Your task to perform on an android device: turn on notifications settings in the gmail app Image 0: 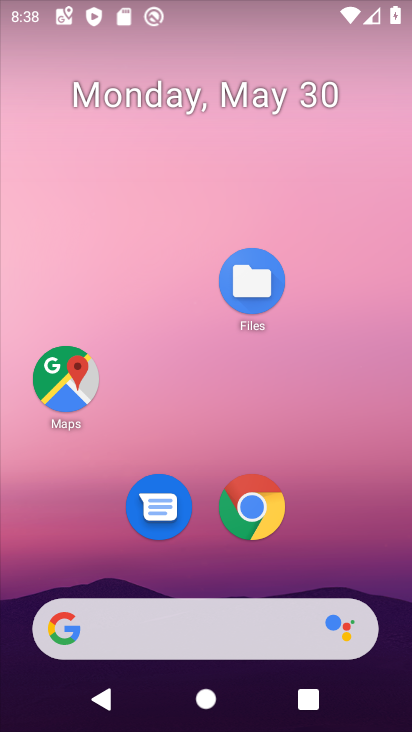
Step 0: drag from (206, 584) to (264, 161)
Your task to perform on an android device: turn on notifications settings in the gmail app Image 1: 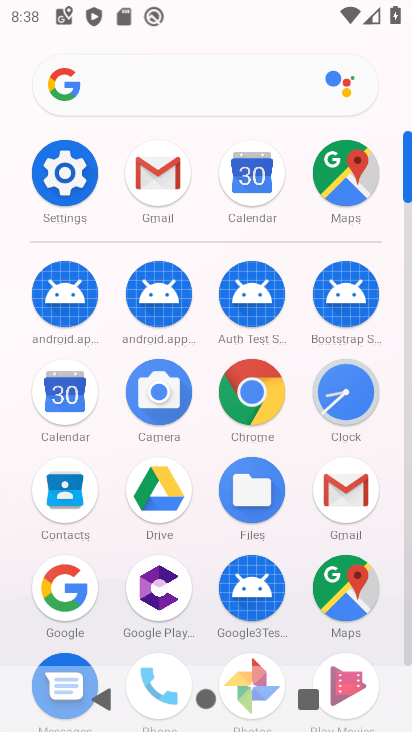
Step 1: click (336, 488)
Your task to perform on an android device: turn on notifications settings in the gmail app Image 2: 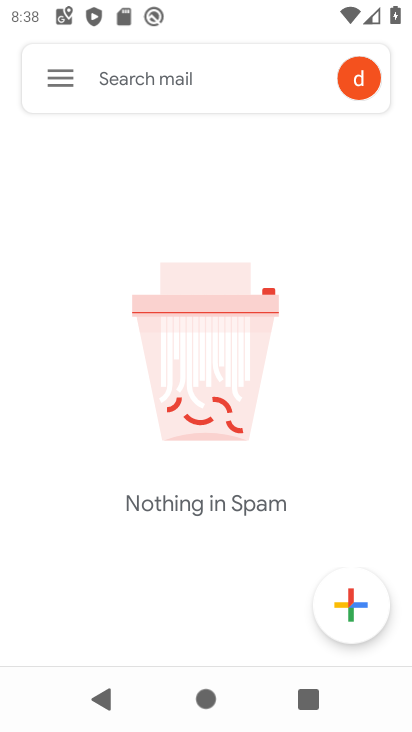
Step 2: click (53, 86)
Your task to perform on an android device: turn on notifications settings in the gmail app Image 3: 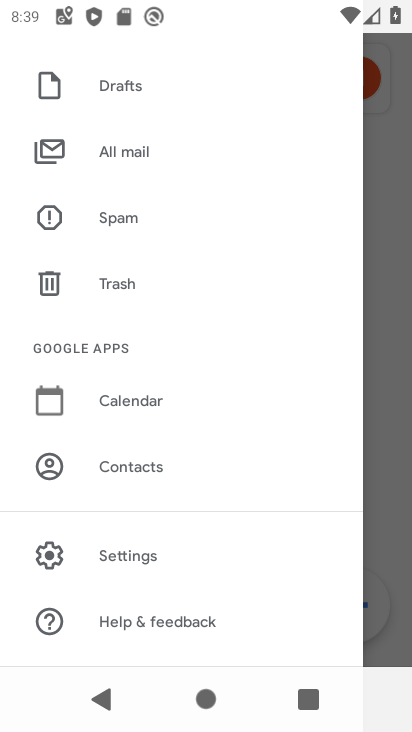
Step 3: click (126, 559)
Your task to perform on an android device: turn on notifications settings in the gmail app Image 4: 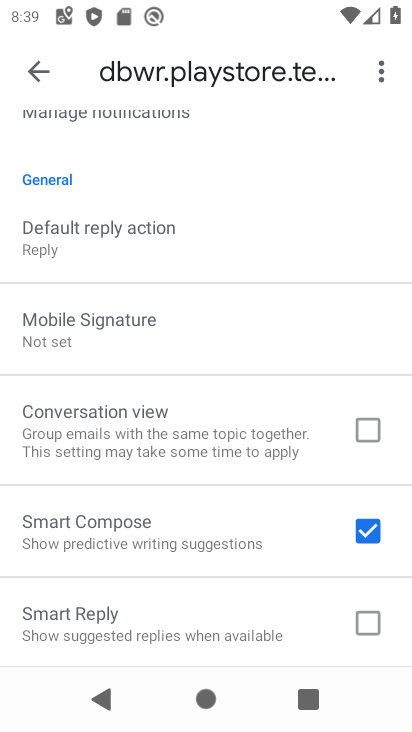
Step 4: click (35, 58)
Your task to perform on an android device: turn on notifications settings in the gmail app Image 5: 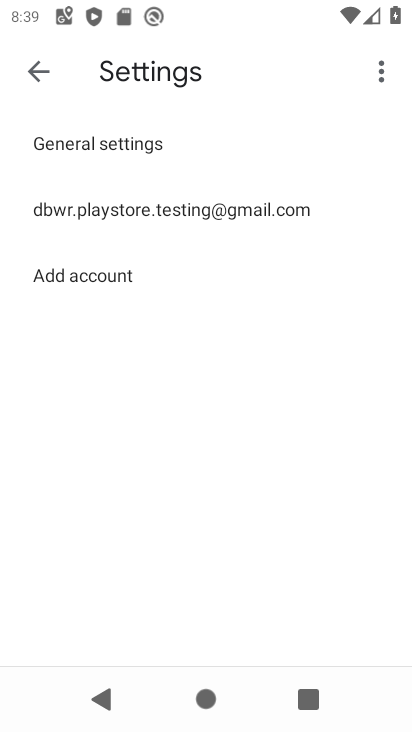
Step 5: click (150, 148)
Your task to perform on an android device: turn on notifications settings in the gmail app Image 6: 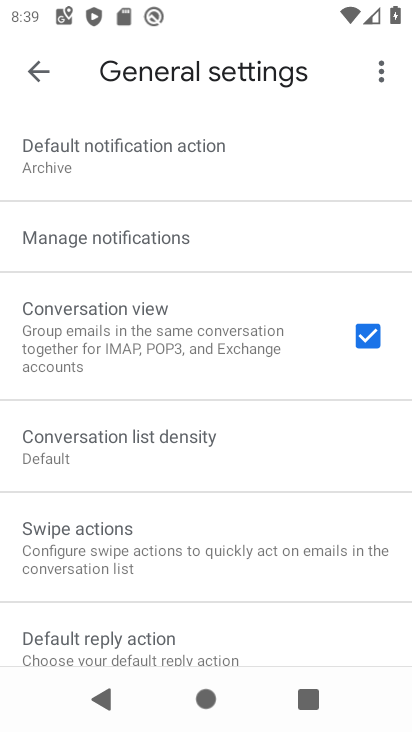
Step 6: click (157, 231)
Your task to perform on an android device: turn on notifications settings in the gmail app Image 7: 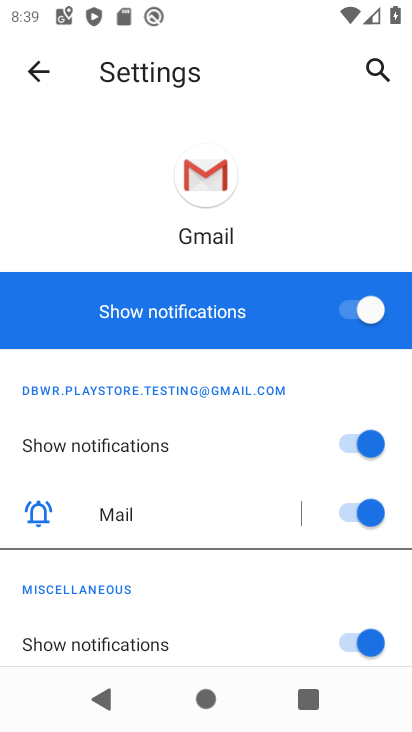
Step 7: task complete